Your task to perform on an android device: turn on improve location accuracy Image 0: 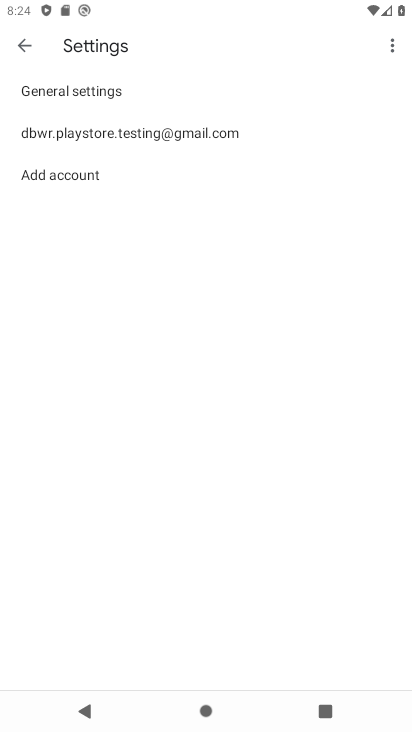
Step 0: press home button
Your task to perform on an android device: turn on improve location accuracy Image 1: 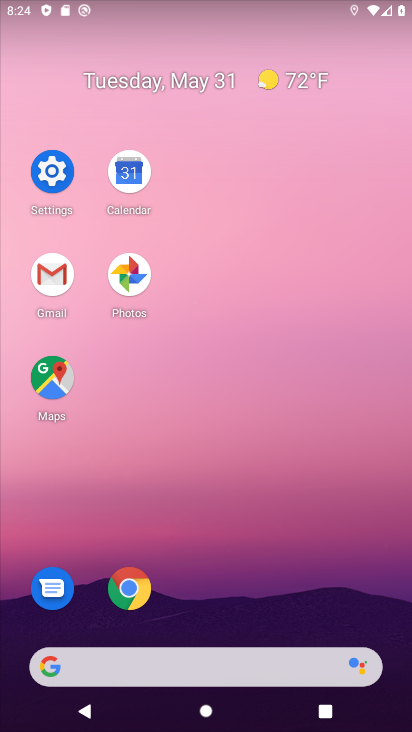
Step 1: click (54, 166)
Your task to perform on an android device: turn on improve location accuracy Image 2: 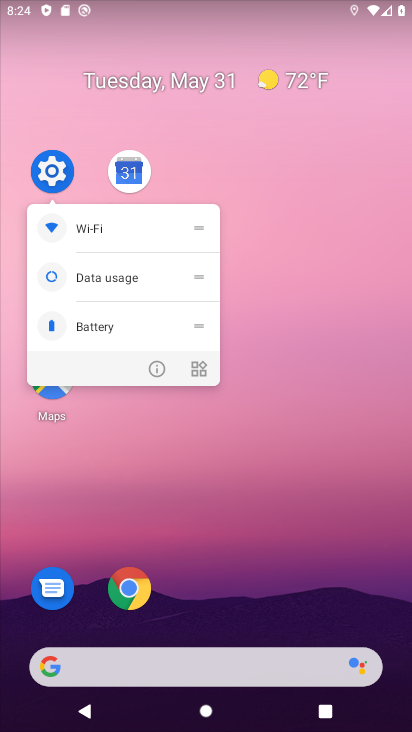
Step 2: click (53, 166)
Your task to perform on an android device: turn on improve location accuracy Image 3: 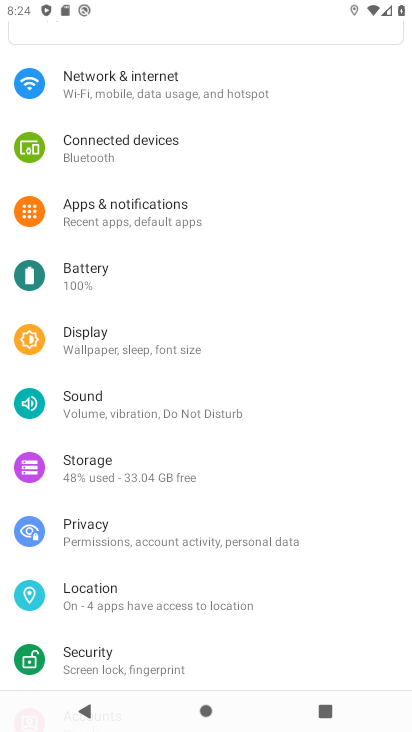
Step 3: click (185, 595)
Your task to perform on an android device: turn on improve location accuracy Image 4: 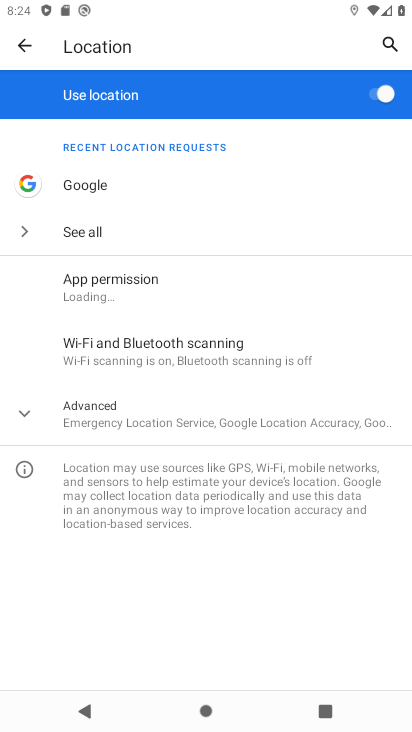
Step 4: click (184, 391)
Your task to perform on an android device: turn on improve location accuracy Image 5: 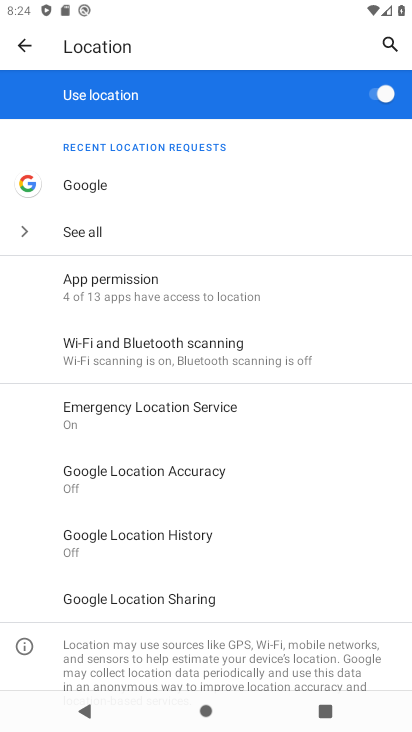
Step 5: click (171, 469)
Your task to perform on an android device: turn on improve location accuracy Image 6: 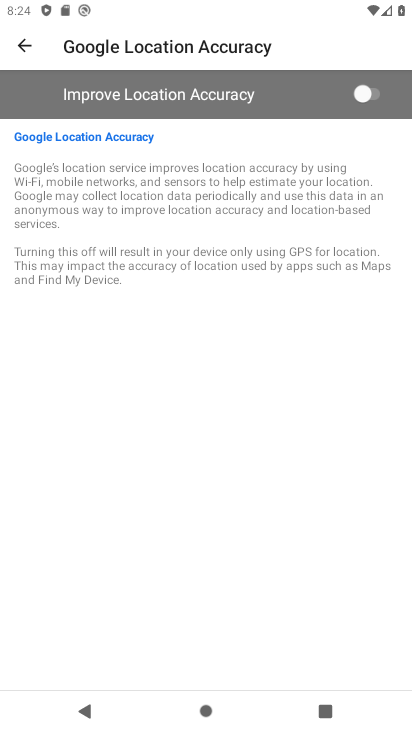
Step 6: click (372, 79)
Your task to perform on an android device: turn on improve location accuracy Image 7: 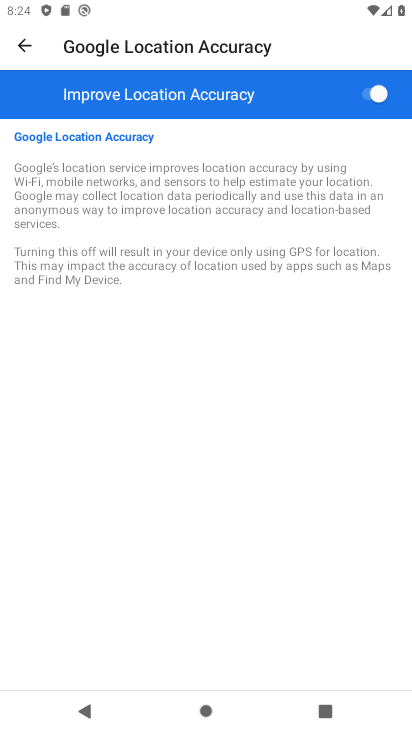
Step 7: task complete